Your task to perform on an android device: open chrome privacy settings Image 0: 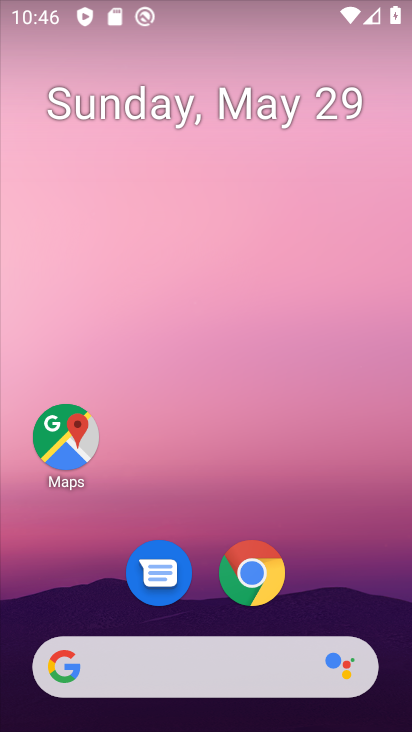
Step 0: click (258, 577)
Your task to perform on an android device: open chrome privacy settings Image 1: 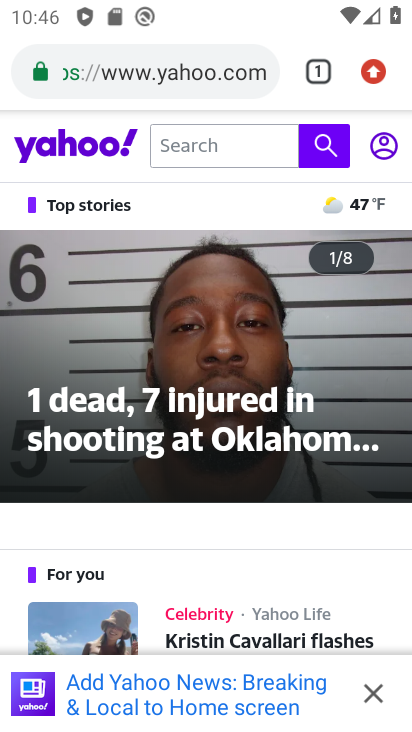
Step 1: drag from (370, 57) to (163, 558)
Your task to perform on an android device: open chrome privacy settings Image 2: 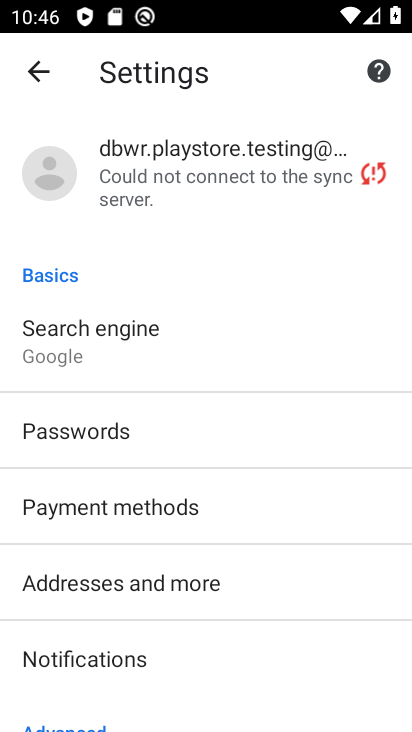
Step 2: drag from (262, 675) to (191, 182)
Your task to perform on an android device: open chrome privacy settings Image 3: 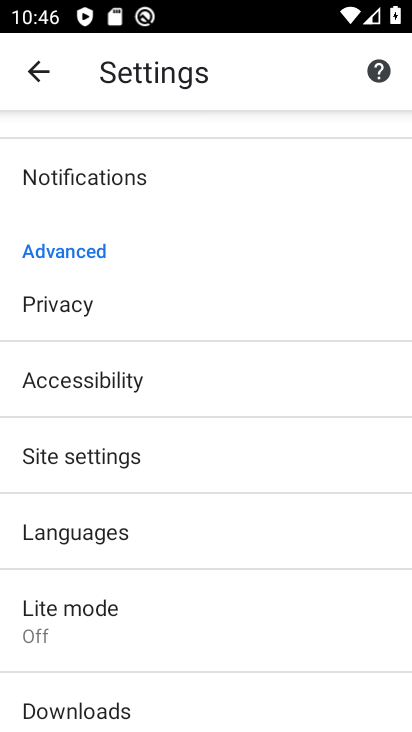
Step 3: click (115, 305)
Your task to perform on an android device: open chrome privacy settings Image 4: 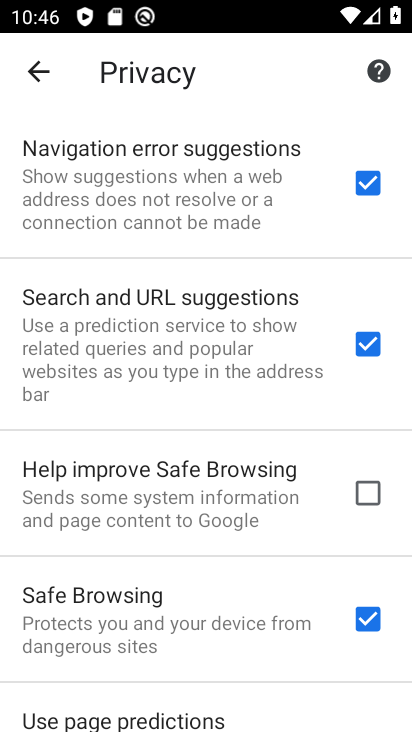
Step 4: task complete